Your task to perform on an android device: turn notification dots off Image 0: 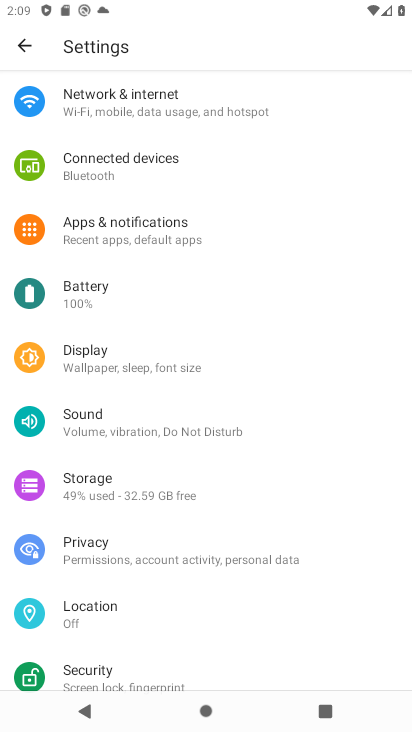
Step 0: click (114, 237)
Your task to perform on an android device: turn notification dots off Image 1: 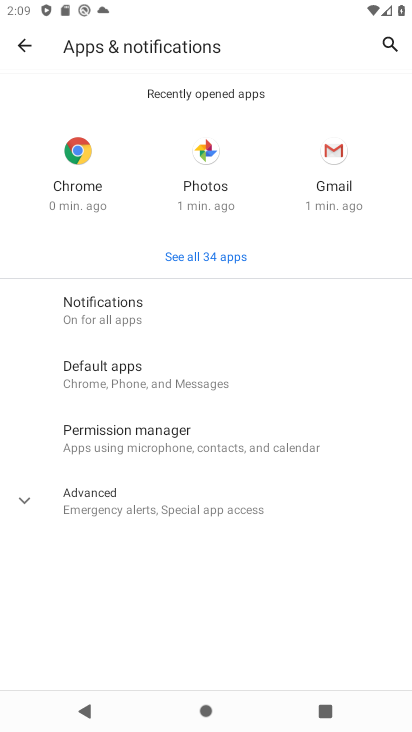
Step 1: click (144, 303)
Your task to perform on an android device: turn notification dots off Image 2: 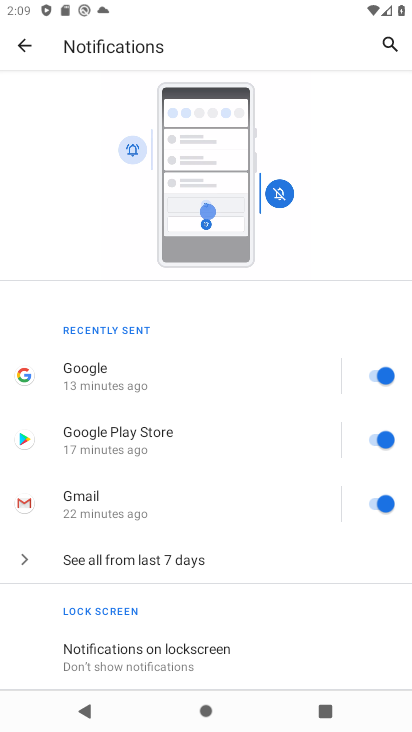
Step 2: drag from (129, 660) to (215, 58)
Your task to perform on an android device: turn notification dots off Image 3: 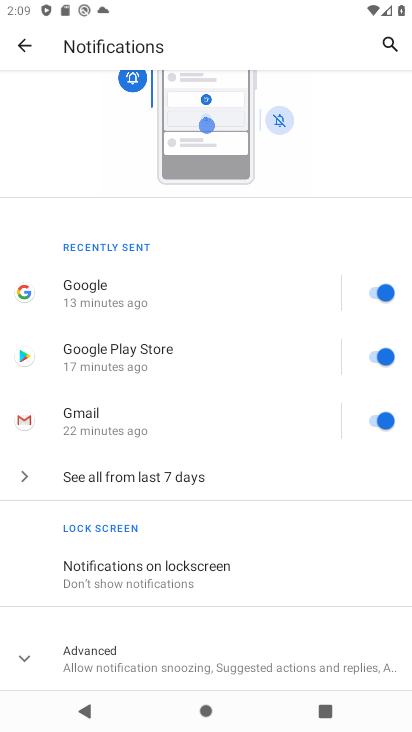
Step 3: drag from (174, 576) to (238, 168)
Your task to perform on an android device: turn notification dots off Image 4: 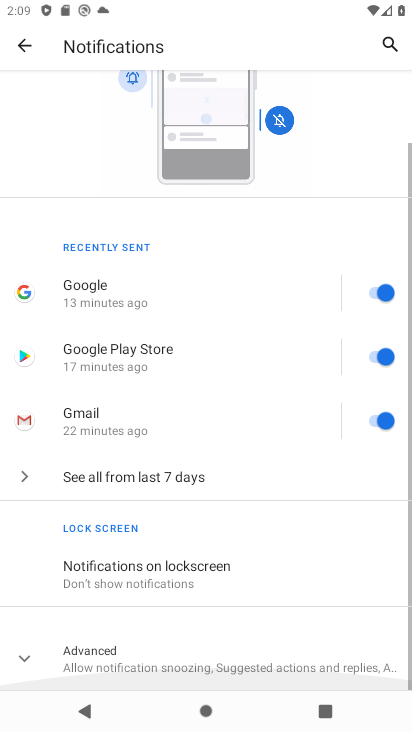
Step 4: click (158, 652)
Your task to perform on an android device: turn notification dots off Image 5: 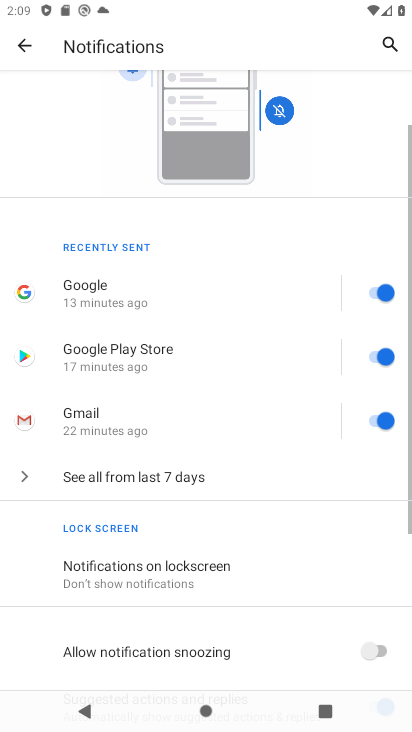
Step 5: task complete